Your task to perform on an android device: Clear all items from cart on costco.com. Search for alienware area 51 on costco.com, select the first entry, and add it to the cart. Image 0: 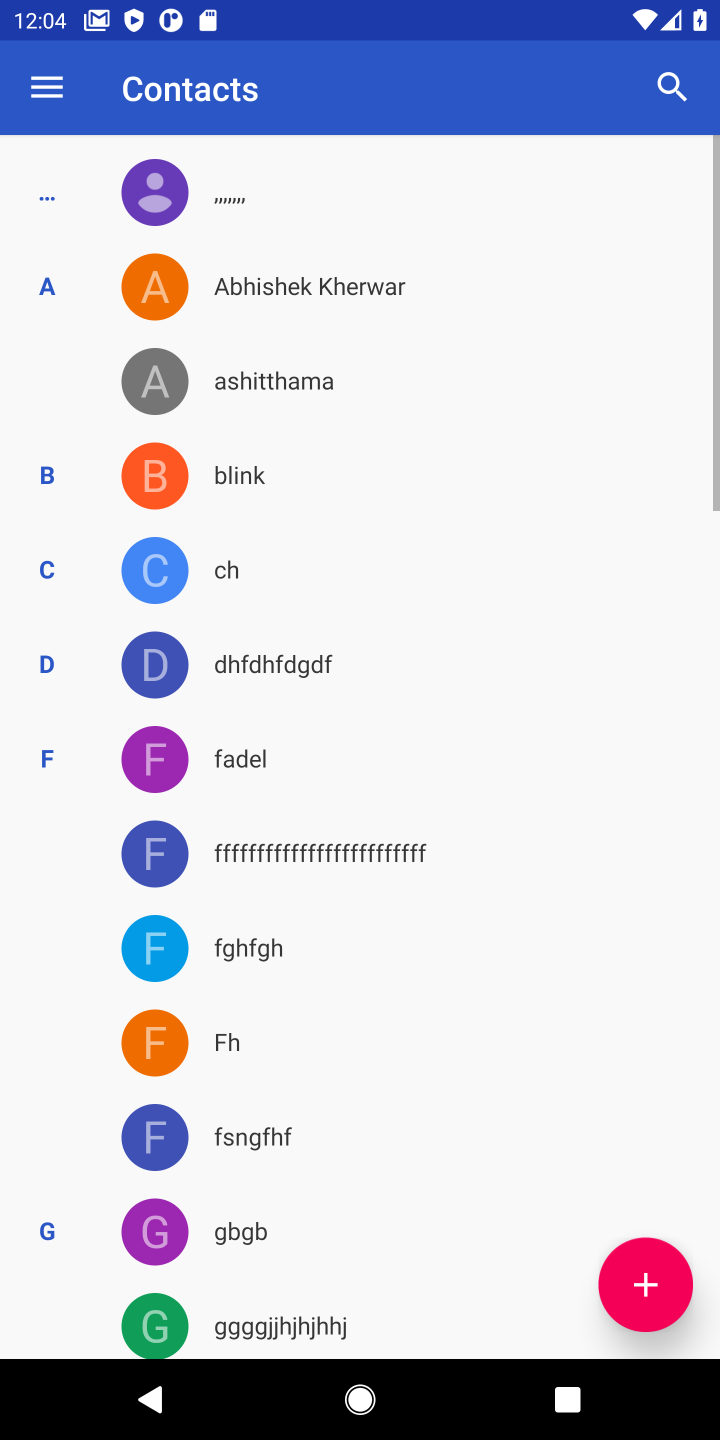
Step 0: press home button
Your task to perform on an android device: Clear all items from cart on costco.com. Search for alienware area 51 on costco.com, select the first entry, and add it to the cart. Image 1: 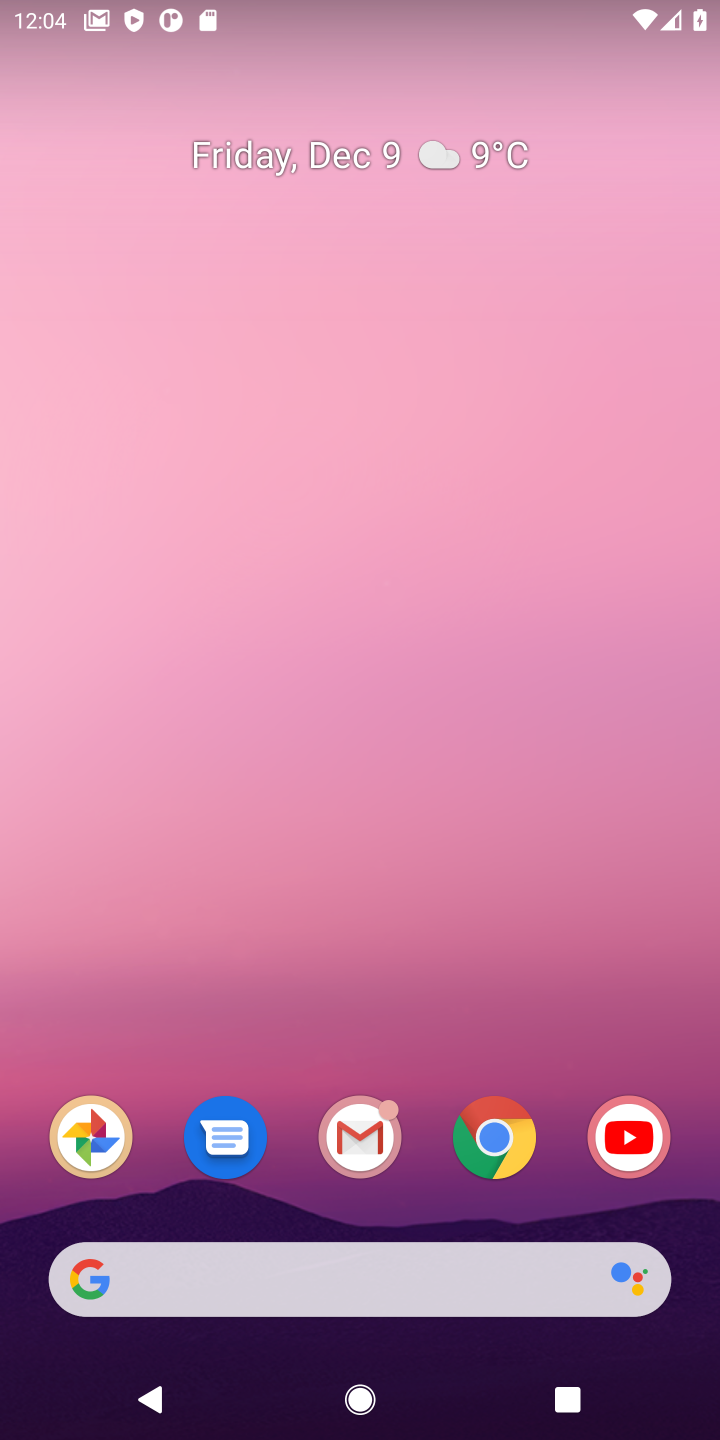
Step 1: click (343, 1302)
Your task to perform on an android device: Clear all items from cart on costco.com. Search for alienware area 51 on costco.com, select the first entry, and add it to the cart. Image 2: 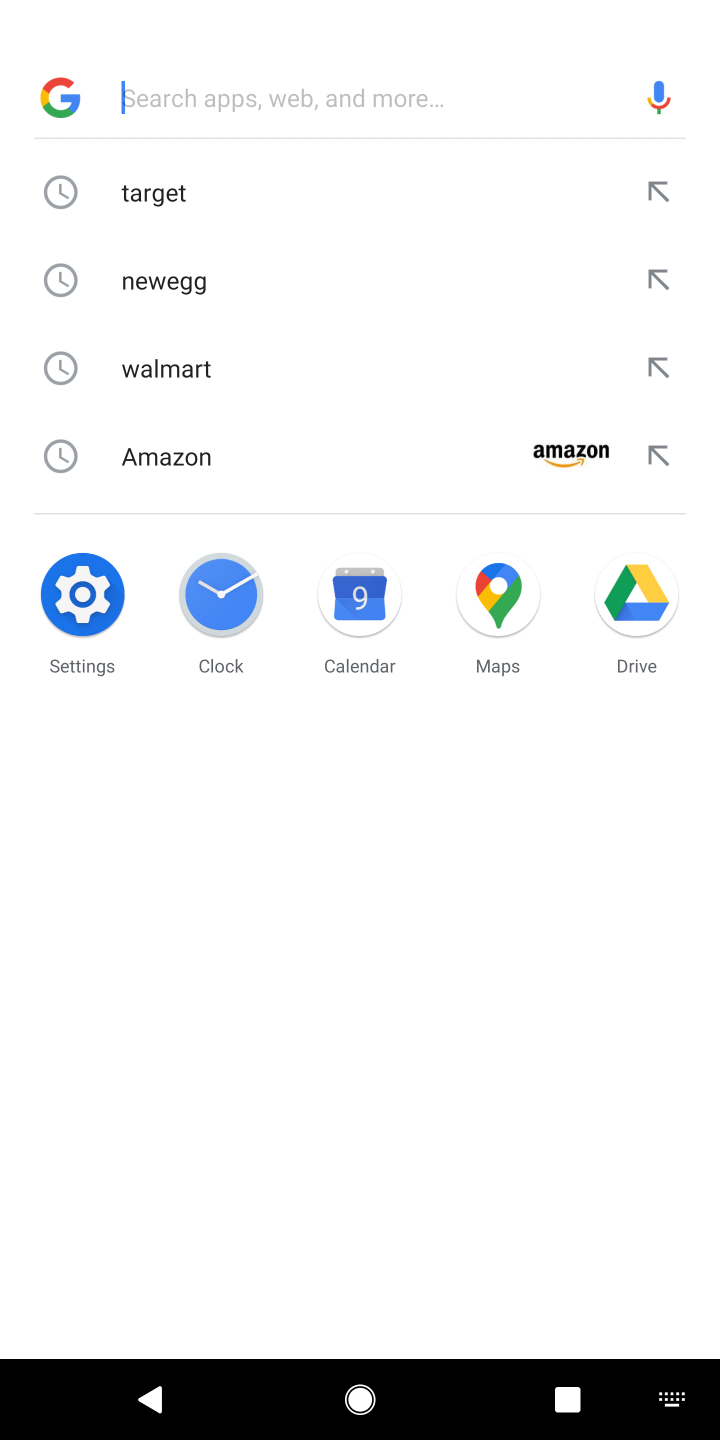
Step 2: type "costco"
Your task to perform on an android device: Clear all items from cart on costco.com. Search for alienware area 51 on costco.com, select the first entry, and add it to the cart. Image 3: 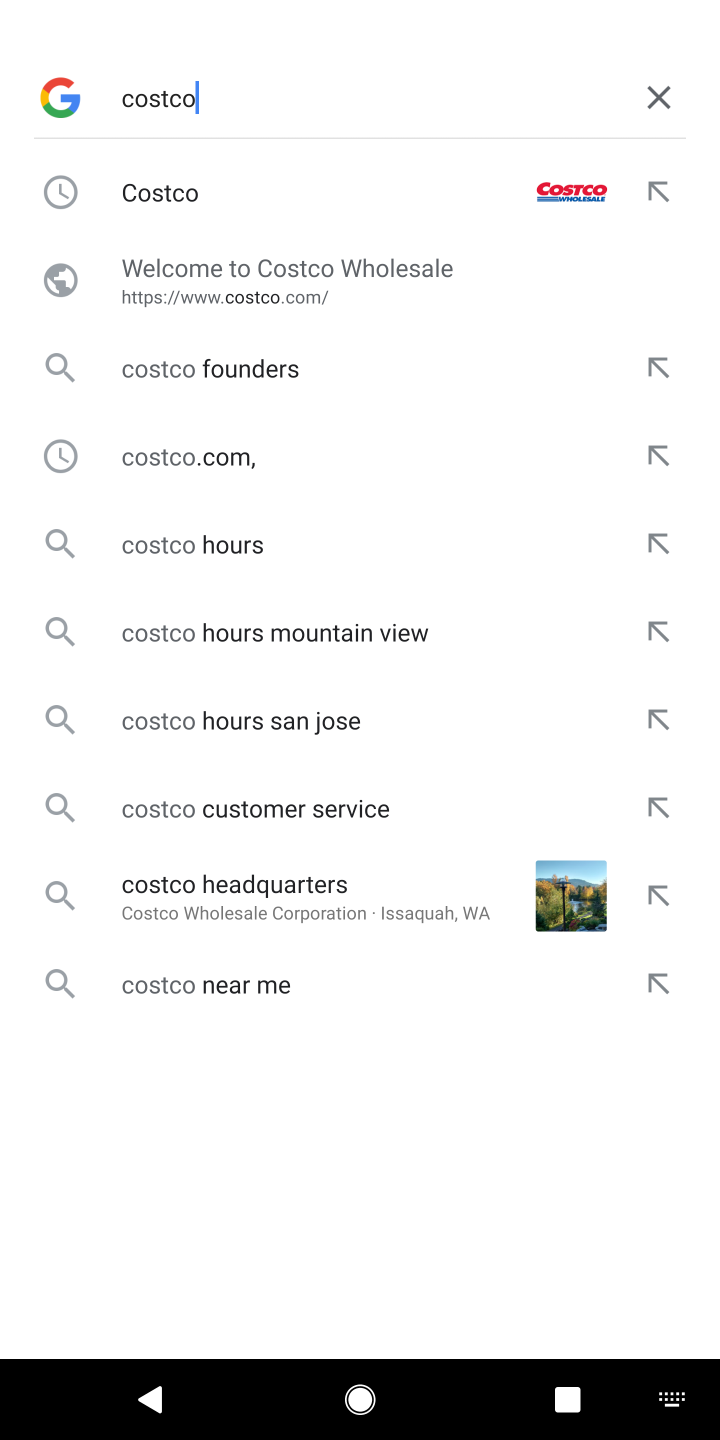
Step 3: click (166, 210)
Your task to perform on an android device: Clear all items from cart on costco.com. Search for alienware area 51 on costco.com, select the first entry, and add it to the cart. Image 4: 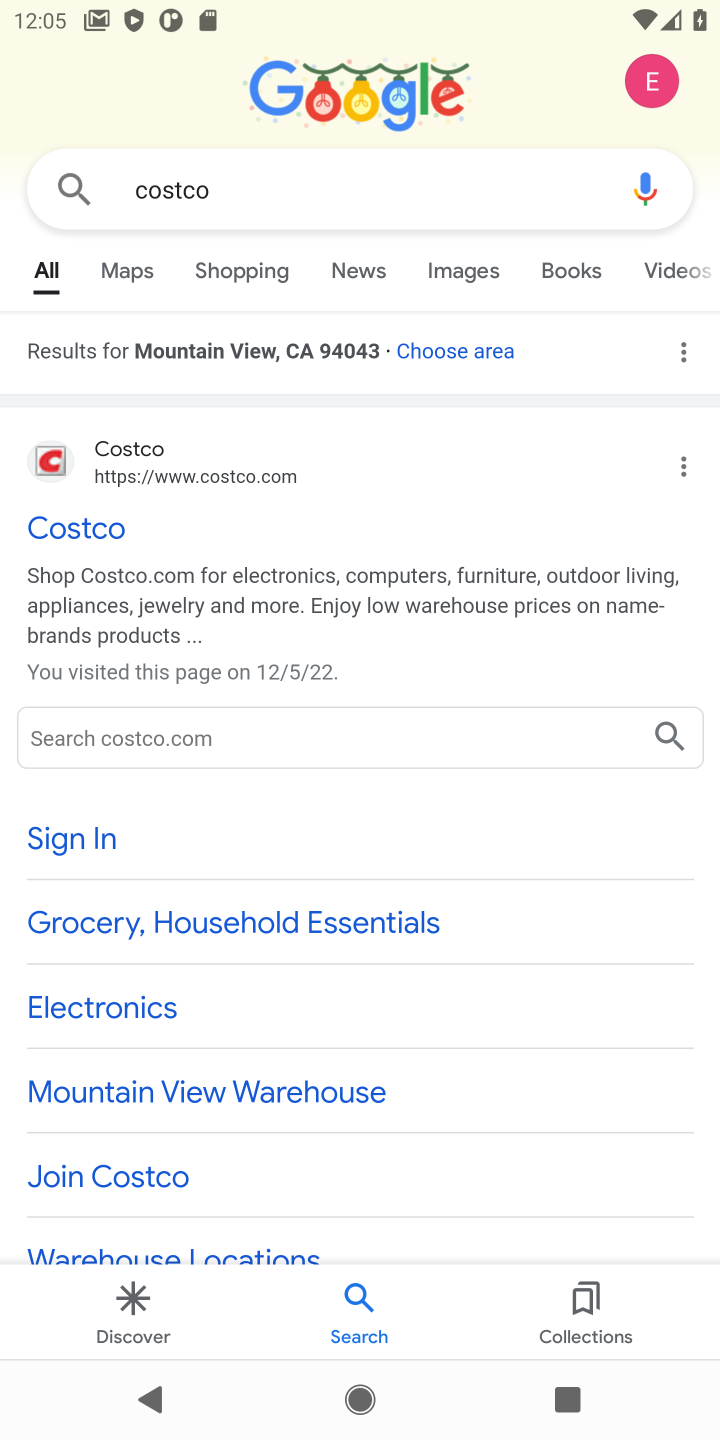
Step 4: click (112, 557)
Your task to perform on an android device: Clear all items from cart on costco.com. Search for alienware area 51 on costco.com, select the first entry, and add it to the cart. Image 5: 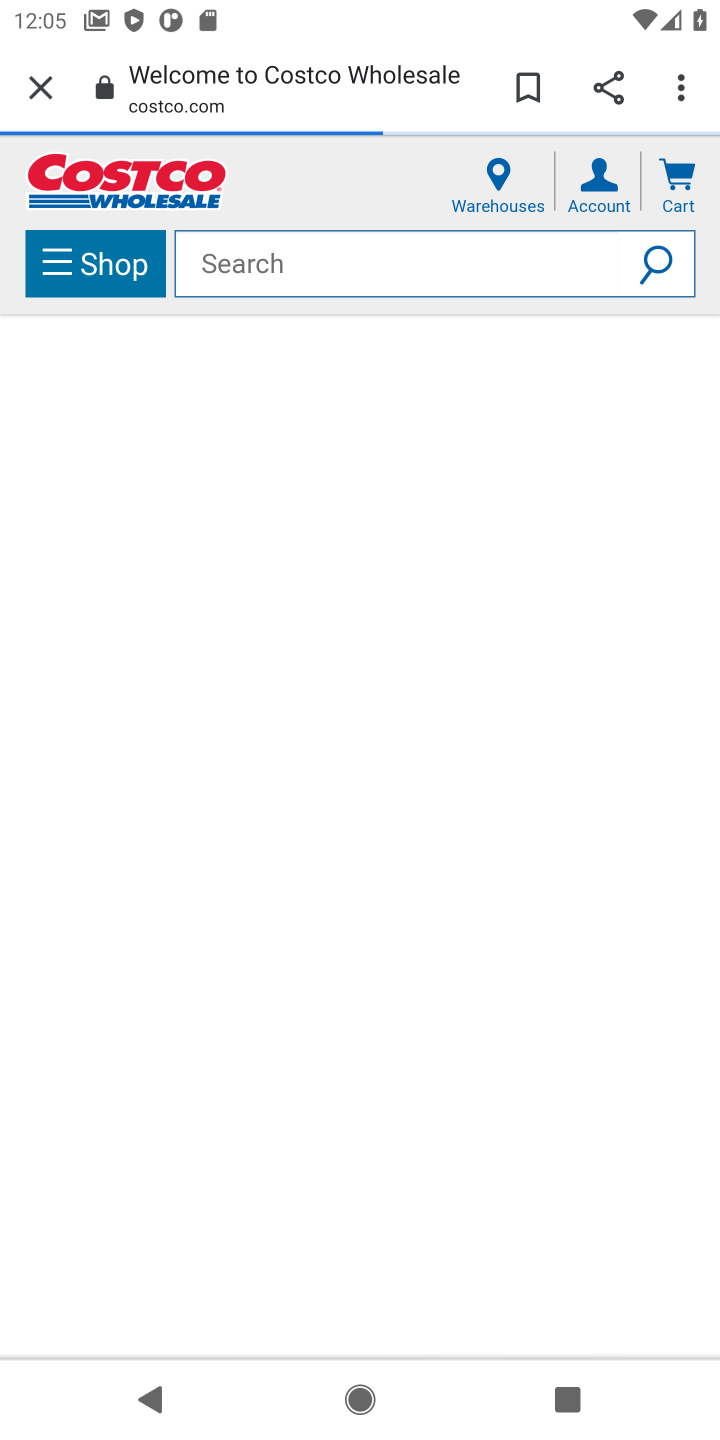
Step 5: click (112, 538)
Your task to perform on an android device: Clear all items from cart on costco.com. Search for alienware area 51 on costco.com, select the first entry, and add it to the cart. Image 6: 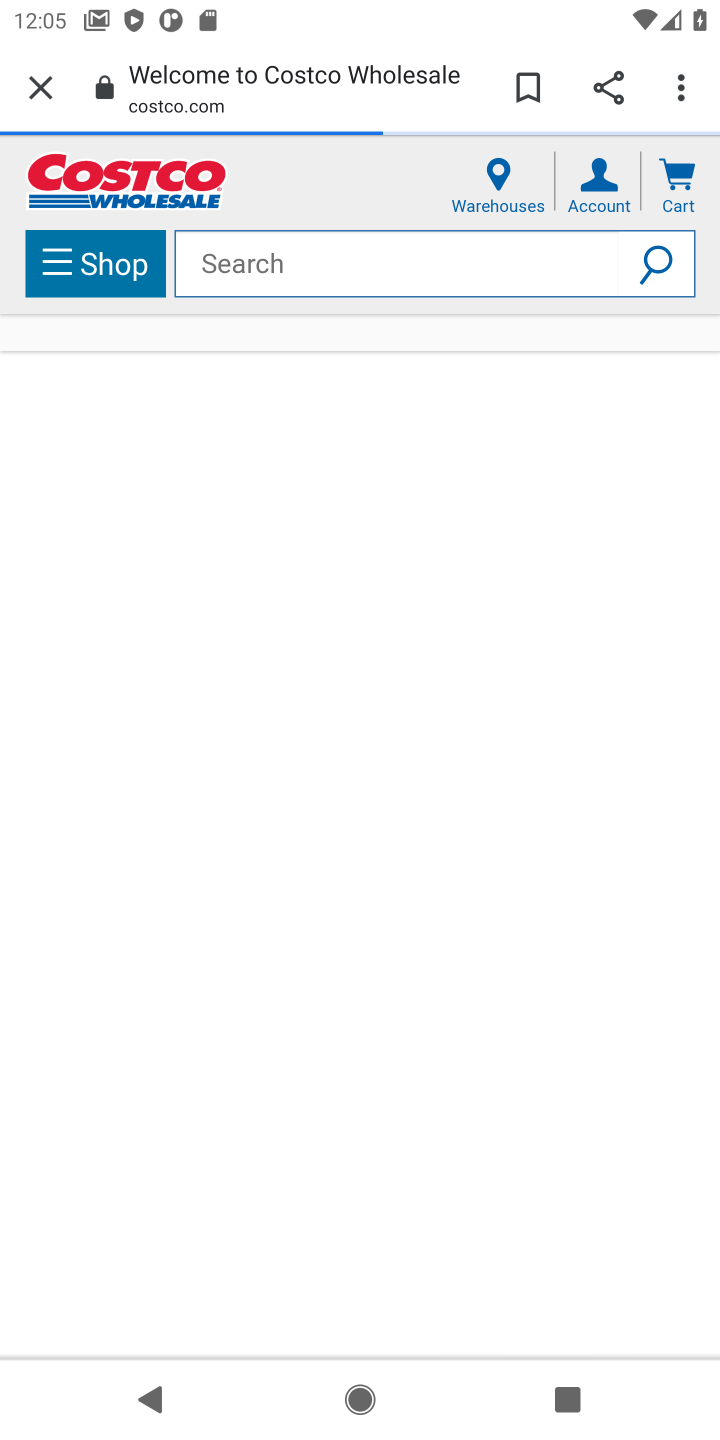
Step 6: click (227, 264)
Your task to perform on an android device: Clear all items from cart on costco.com. Search for alienware area 51 on costco.com, select the first entry, and add it to the cart. Image 7: 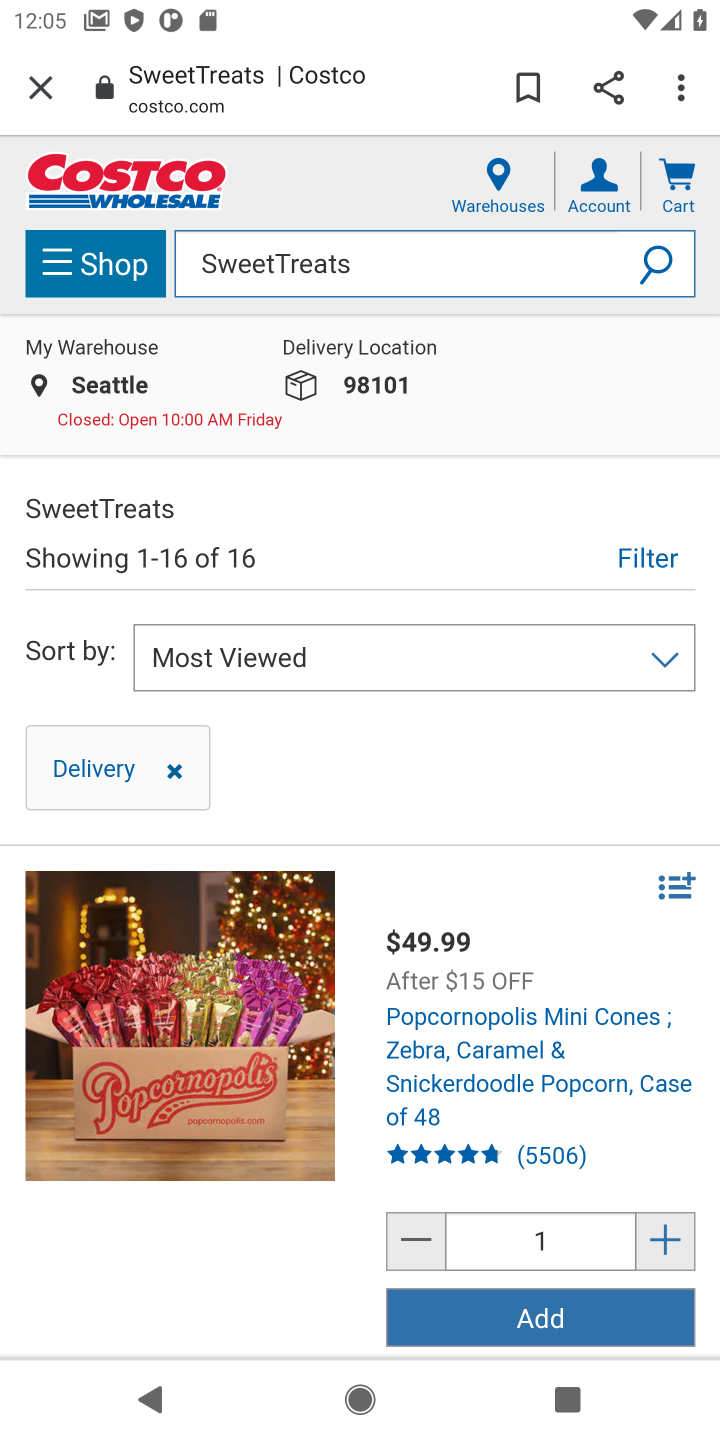
Step 7: type "alienware area 51"
Your task to perform on an android device: Clear all items from cart on costco.com. Search for alienware area 51 on costco.com, select the first entry, and add it to the cart. Image 8: 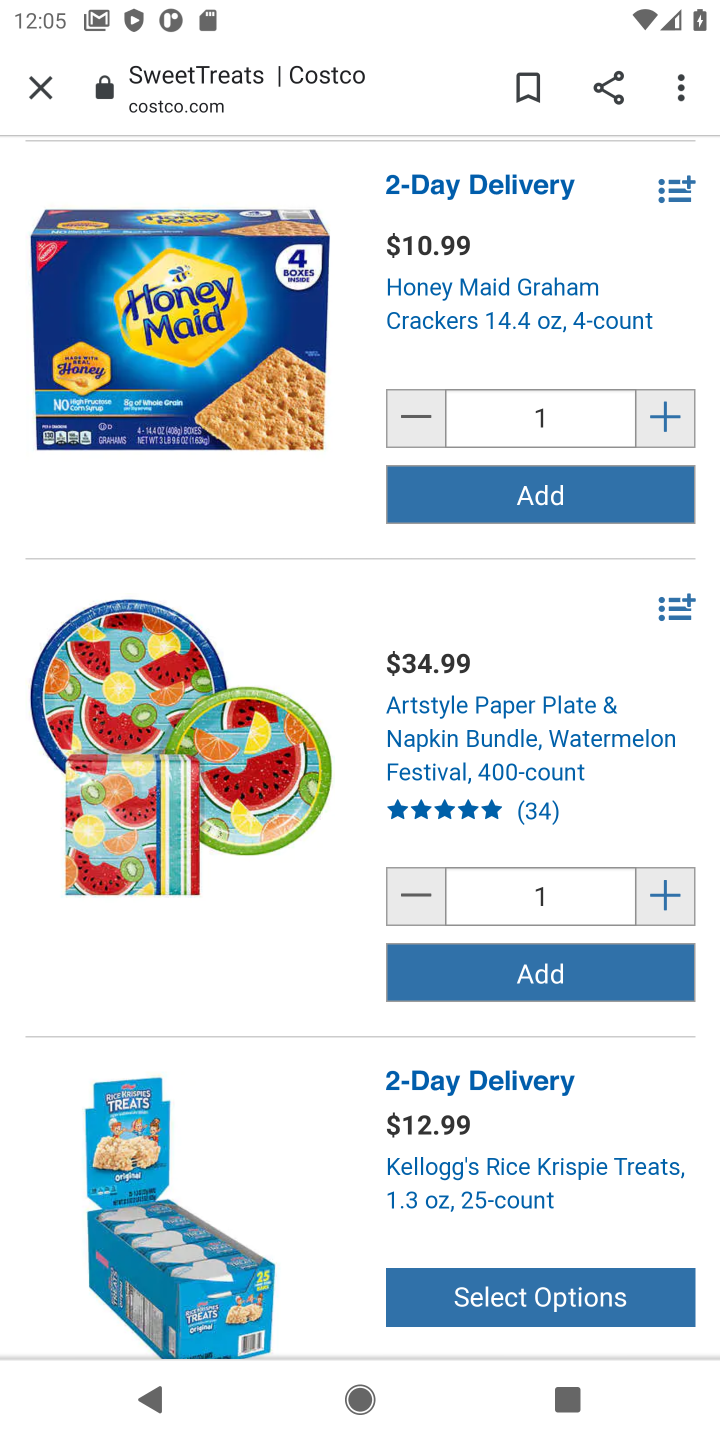
Step 8: click (494, 524)
Your task to perform on an android device: Clear all items from cart on costco.com. Search for alienware area 51 on costco.com, select the first entry, and add it to the cart. Image 9: 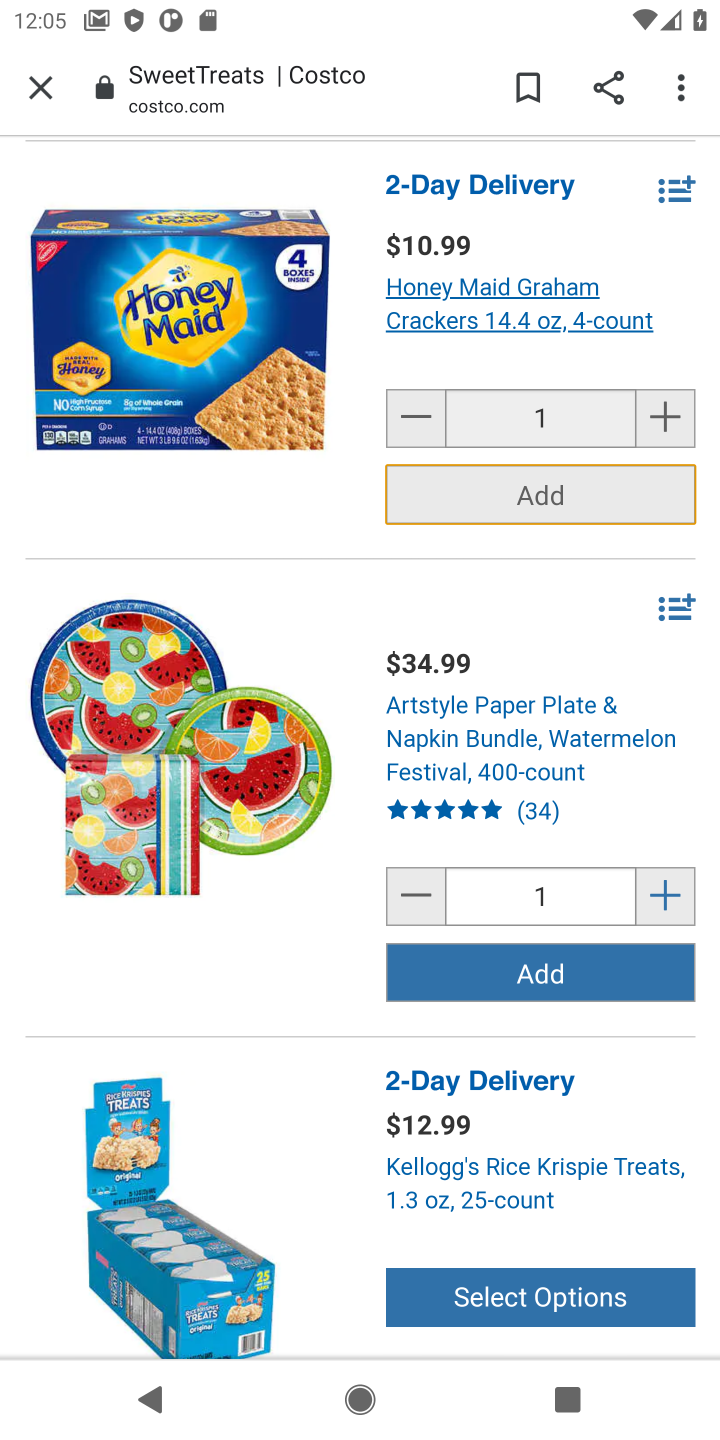
Step 9: task complete